Your task to perform on an android device: turn on the 12-hour format for clock Image 0: 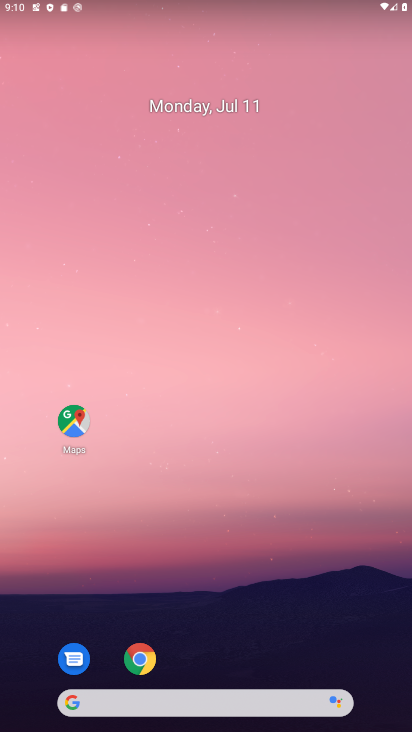
Step 0: drag from (226, 727) to (225, 692)
Your task to perform on an android device: turn on the 12-hour format for clock Image 1: 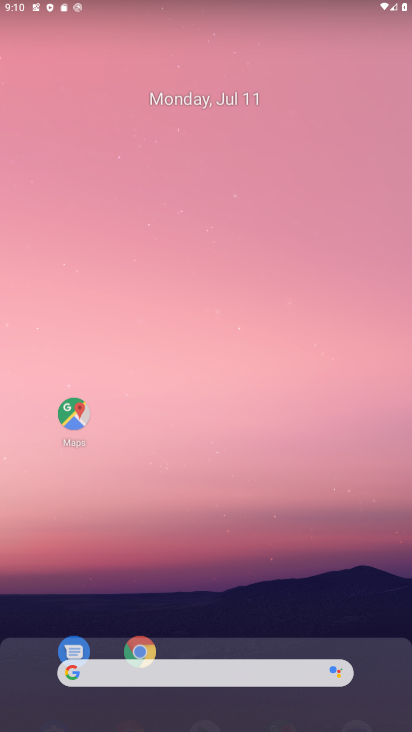
Step 1: click (218, 3)
Your task to perform on an android device: turn on the 12-hour format for clock Image 2: 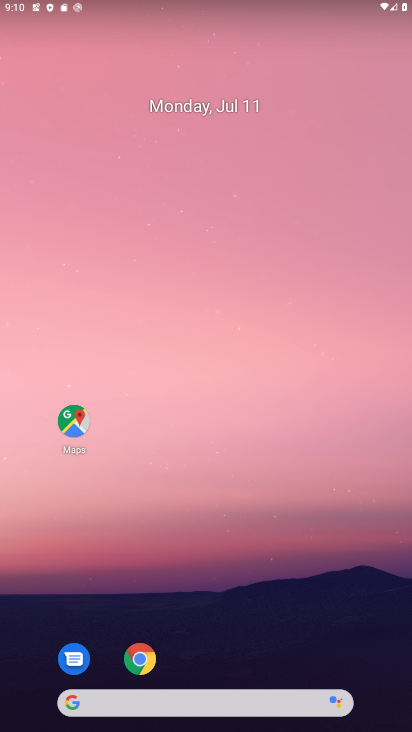
Step 2: drag from (242, 728) to (243, 133)
Your task to perform on an android device: turn on the 12-hour format for clock Image 3: 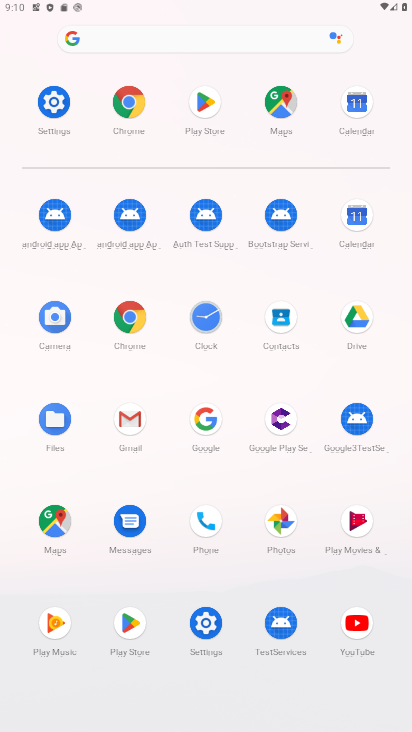
Step 3: click (205, 319)
Your task to perform on an android device: turn on the 12-hour format for clock Image 4: 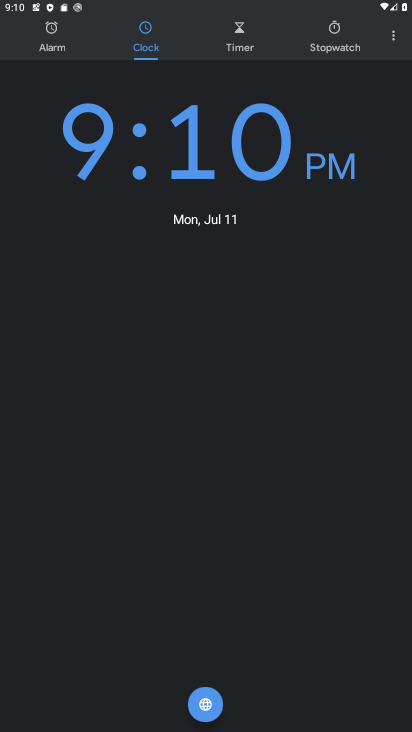
Step 4: click (394, 33)
Your task to perform on an android device: turn on the 12-hour format for clock Image 5: 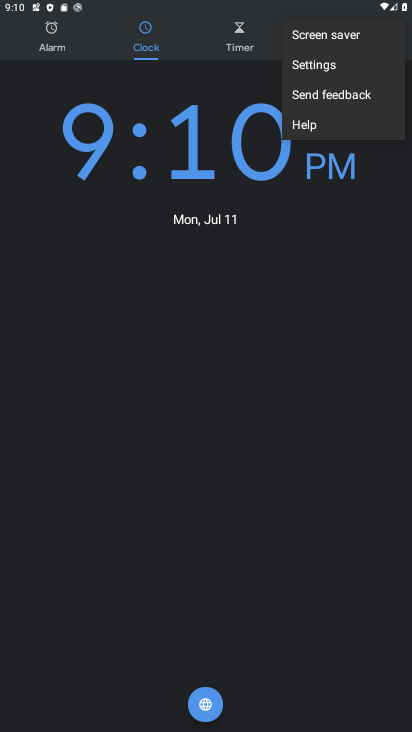
Step 5: click (326, 65)
Your task to perform on an android device: turn on the 12-hour format for clock Image 6: 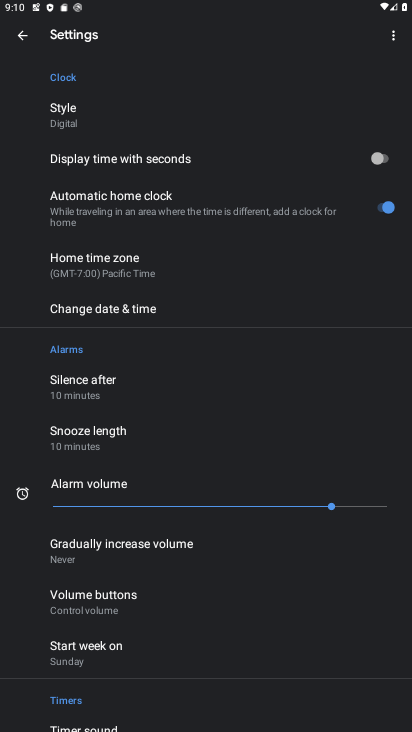
Step 6: click (106, 311)
Your task to perform on an android device: turn on the 12-hour format for clock Image 7: 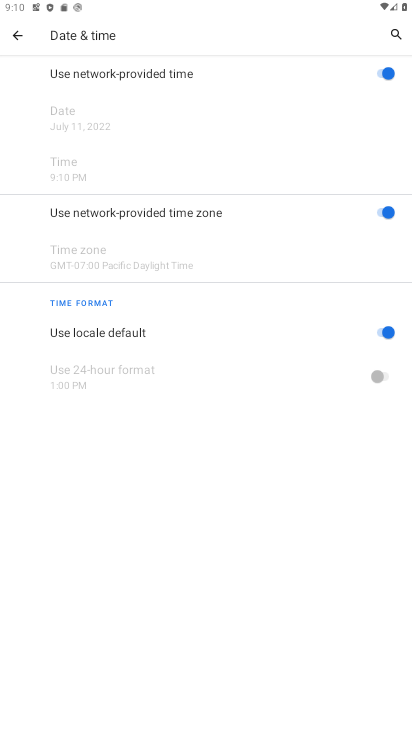
Step 7: task complete